Your task to perform on an android device: When is my next appointment? Image 0: 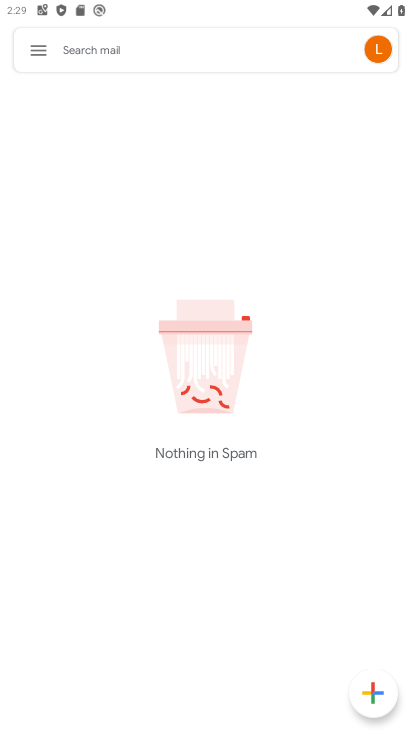
Step 0: drag from (390, 640) to (382, 269)
Your task to perform on an android device: When is my next appointment? Image 1: 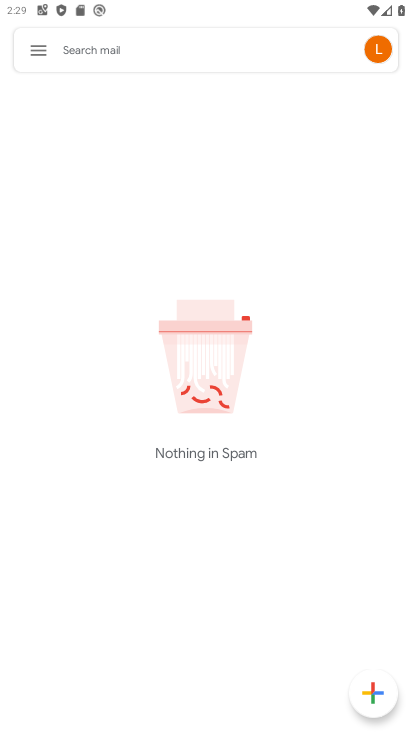
Step 1: press home button
Your task to perform on an android device: When is my next appointment? Image 2: 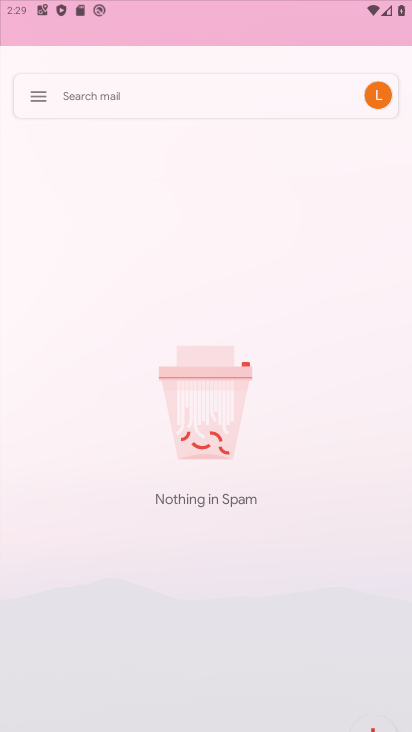
Step 2: drag from (378, 679) to (260, 56)
Your task to perform on an android device: When is my next appointment? Image 3: 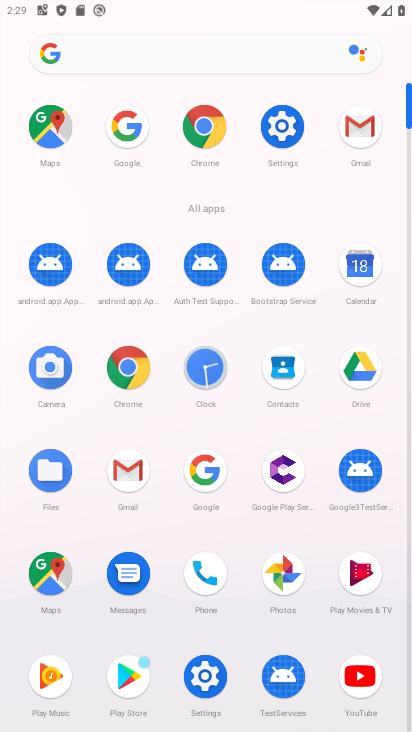
Step 3: click (280, 139)
Your task to perform on an android device: When is my next appointment? Image 4: 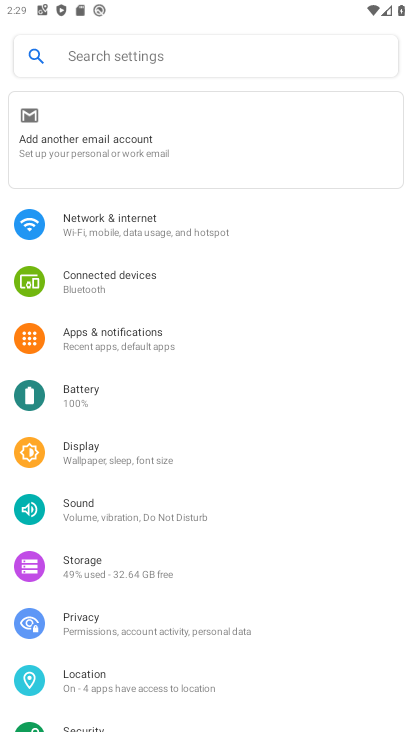
Step 4: task complete